Your task to perform on an android device: turn on priority inbox in the gmail app Image 0: 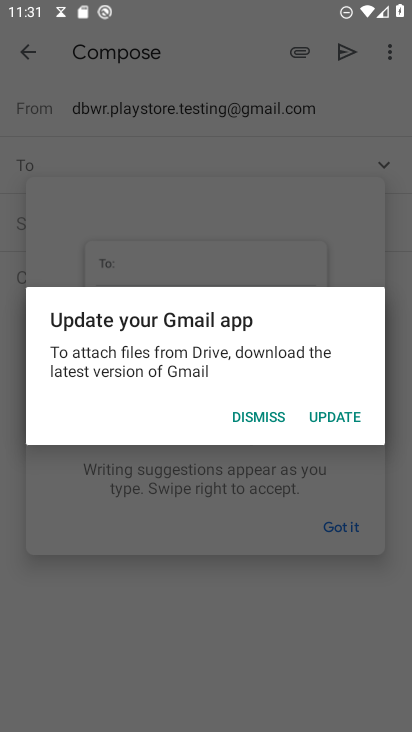
Step 0: press home button
Your task to perform on an android device: turn on priority inbox in the gmail app Image 1: 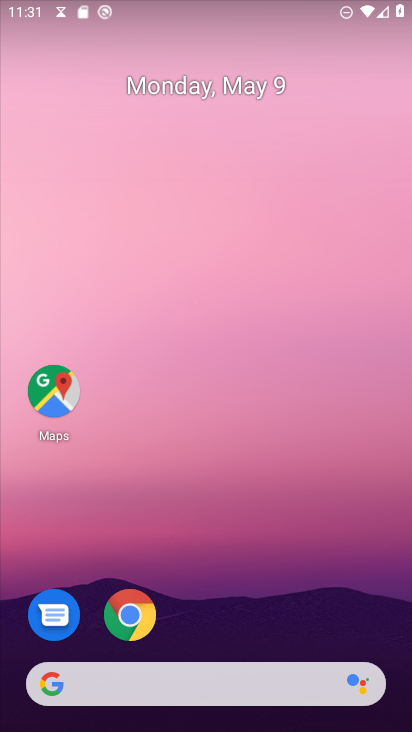
Step 1: drag from (197, 728) to (196, 149)
Your task to perform on an android device: turn on priority inbox in the gmail app Image 2: 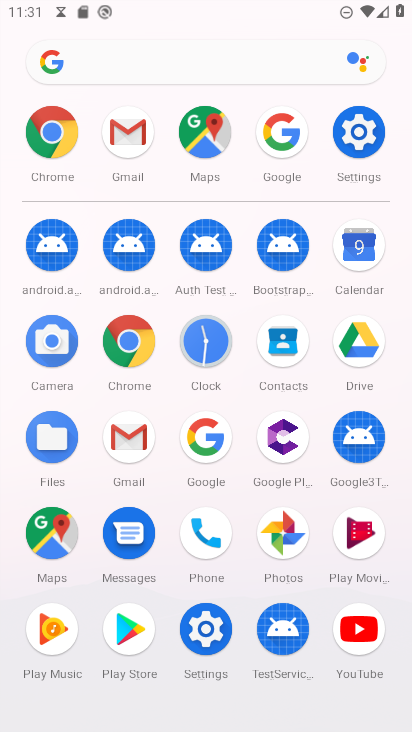
Step 2: click (128, 126)
Your task to perform on an android device: turn on priority inbox in the gmail app Image 3: 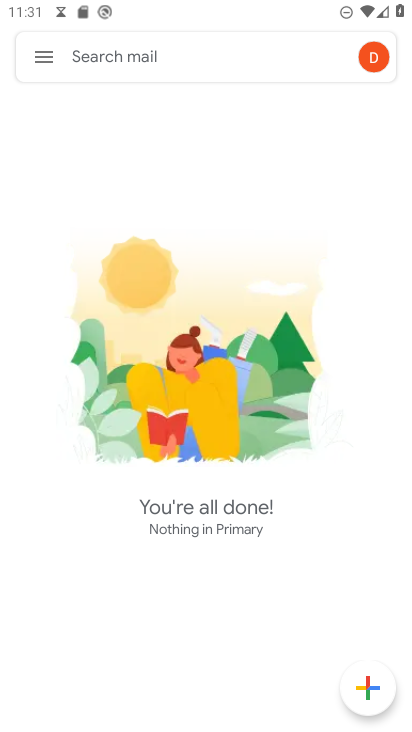
Step 3: click (41, 56)
Your task to perform on an android device: turn on priority inbox in the gmail app Image 4: 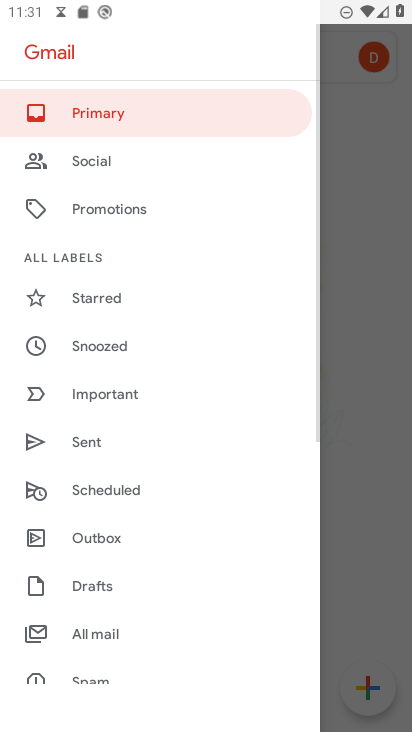
Step 4: drag from (122, 658) to (136, 296)
Your task to perform on an android device: turn on priority inbox in the gmail app Image 5: 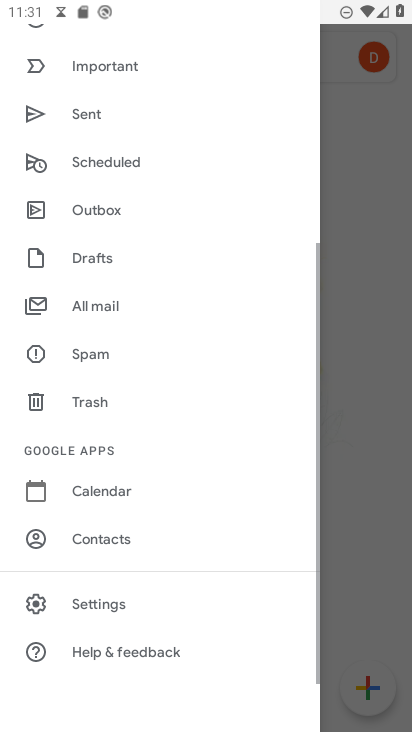
Step 5: click (96, 600)
Your task to perform on an android device: turn on priority inbox in the gmail app Image 6: 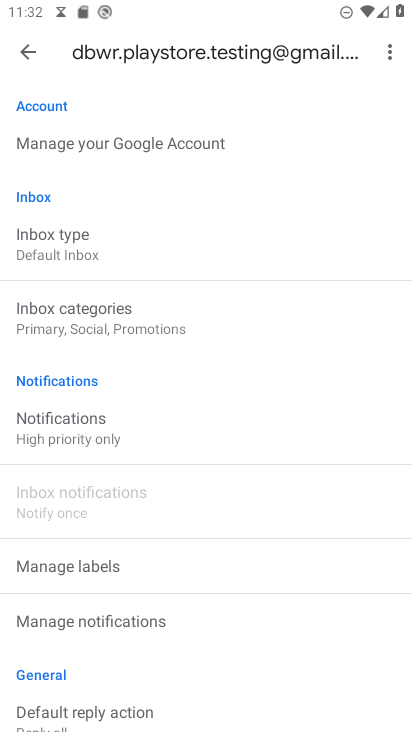
Step 6: drag from (122, 653) to (124, 295)
Your task to perform on an android device: turn on priority inbox in the gmail app Image 7: 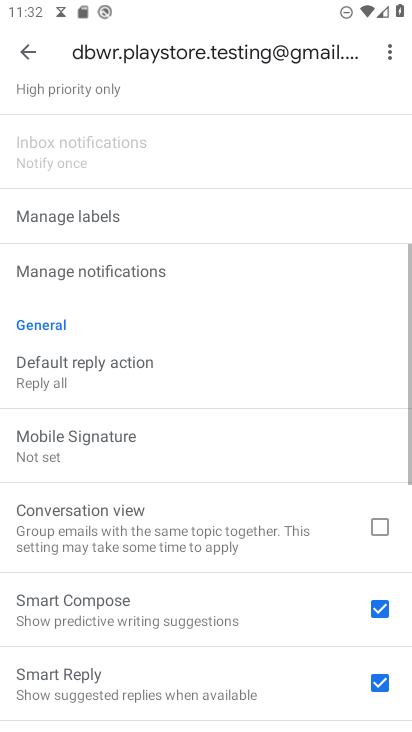
Step 7: click (122, 675)
Your task to perform on an android device: turn on priority inbox in the gmail app Image 8: 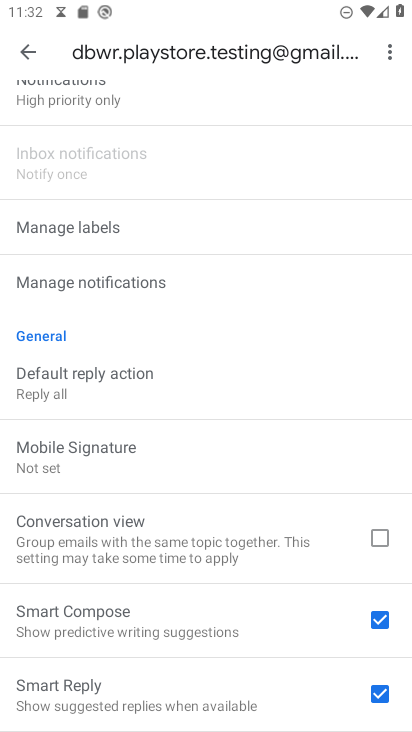
Step 8: drag from (254, 123) to (263, 508)
Your task to perform on an android device: turn on priority inbox in the gmail app Image 9: 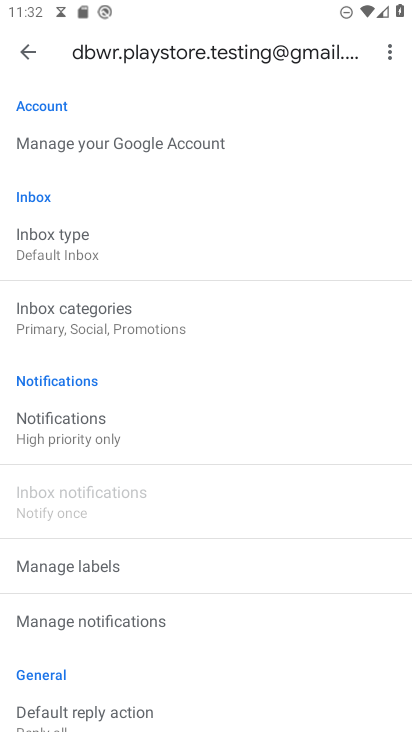
Step 9: drag from (282, 140) to (252, 489)
Your task to perform on an android device: turn on priority inbox in the gmail app Image 10: 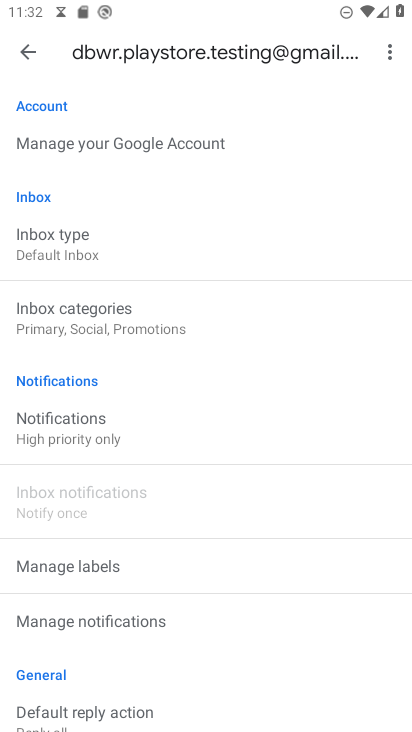
Step 10: click (50, 251)
Your task to perform on an android device: turn on priority inbox in the gmail app Image 11: 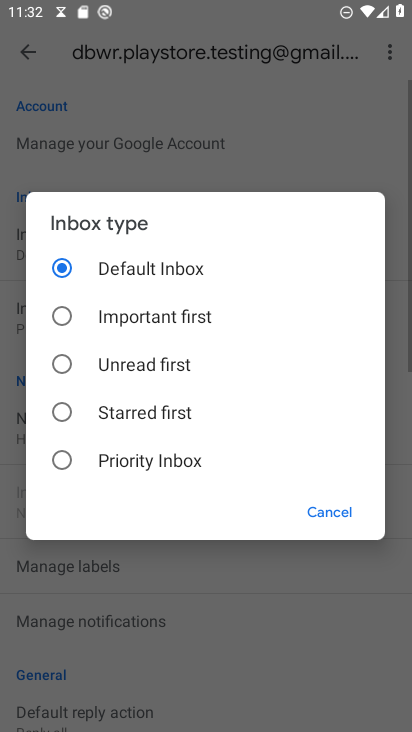
Step 11: click (59, 457)
Your task to perform on an android device: turn on priority inbox in the gmail app Image 12: 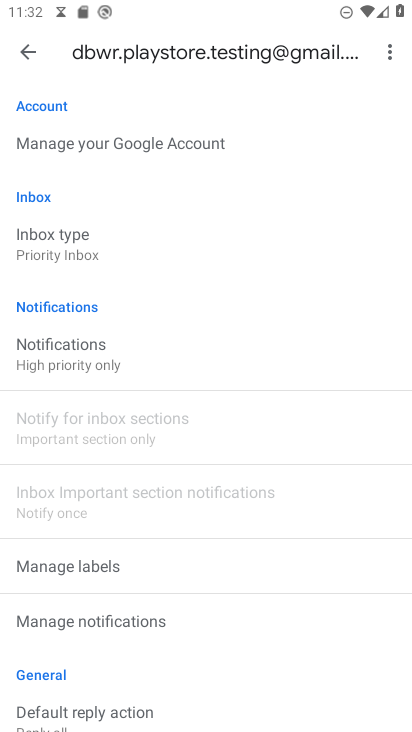
Step 12: task complete